Your task to perform on an android device: View the shopping cart on walmart. Search for usb-c to usb-a on walmart, select the first entry, and add it to the cart. Image 0: 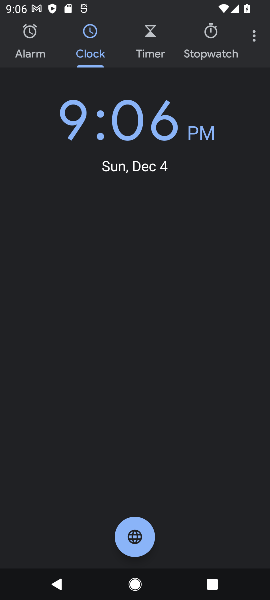
Step 0: press home button
Your task to perform on an android device: View the shopping cart on walmart. Search for usb-c to usb-a on walmart, select the first entry, and add it to the cart. Image 1: 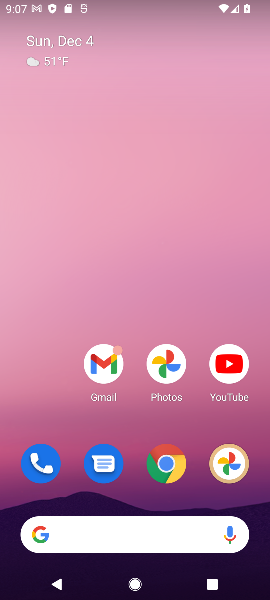
Step 1: click (137, 546)
Your task to perform on an android device: View the shopping cart on walmart. Search for usb-c to usb-a on walmart, select the first entry, and add it to the cart. Image 2: 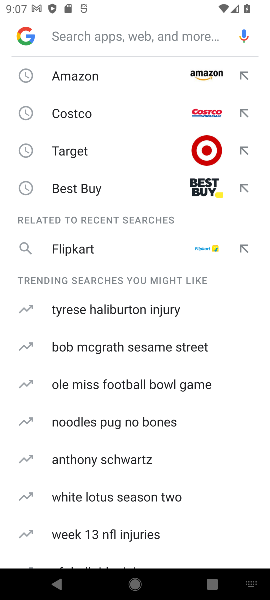
Step 2: type "wakmart"
Your task to perform on an android device: View the shopping cart on walmart. Search for usb-c to usb-a on walmart, select the first entry, and add it to the cart. Image 3: 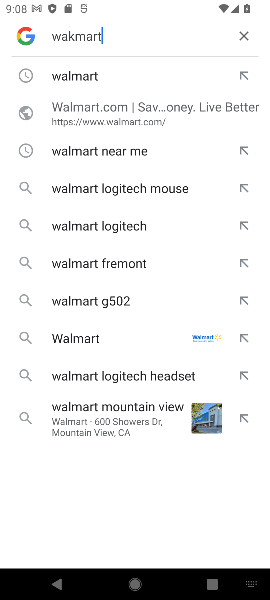
Step 3: click (83, 88)
Your task to perform on an android device: View the shopping cart on walmart. Search for usb-c to usb-a on walmart, select the first entry, and add it to the cart. Image 4: 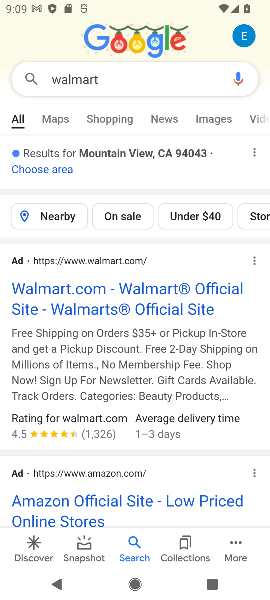
Step 4: click (80, 290)
Your task to perform on an android device: View the shopping cart on walmart. Search for usb-c to usb-a on walmart, select the first entry, and add it to the cart. Image 5: 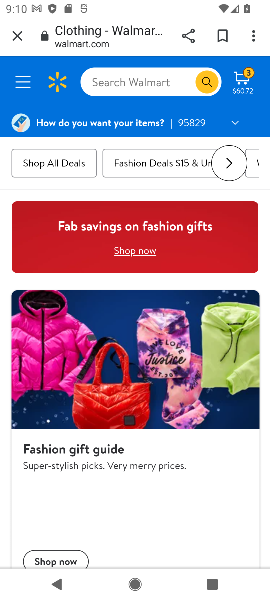
Step 5: task complete